Your task to perform on an android device: Open maps Image 0: 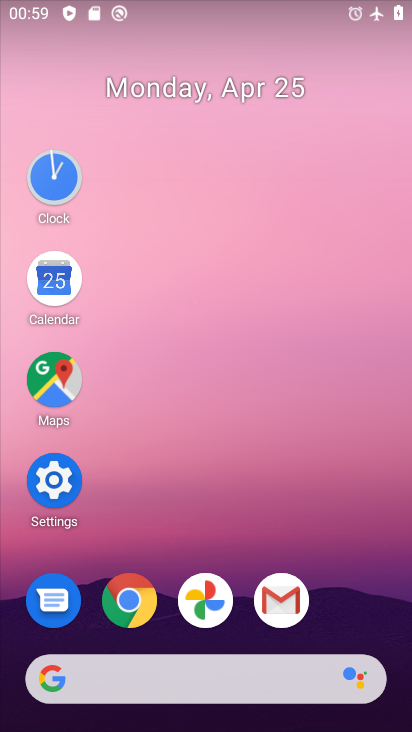
Step 0: click (51, 374)
Your task to perform on an android device: Open maps Image 1: 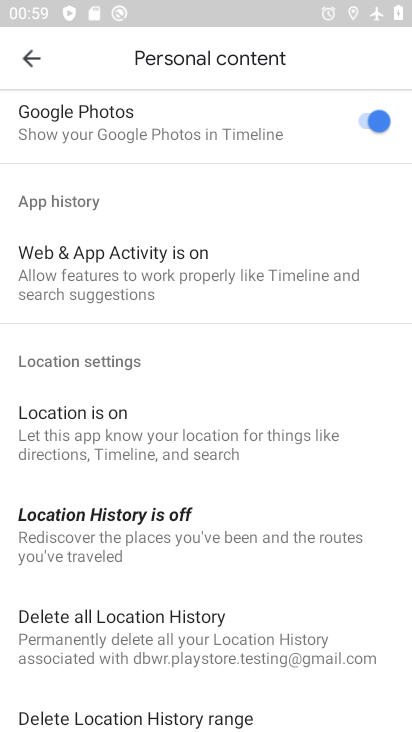
Step 1: click (32, 63)
Your task to perform on an android device: Open maps Image 2: 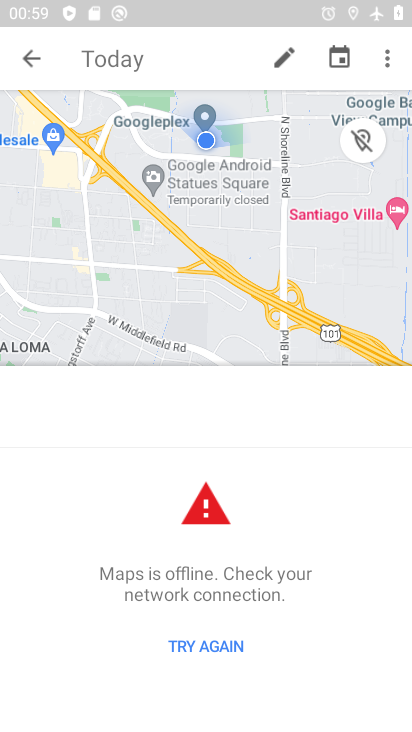
Step 2: task complete